Your task to perform on an android device: Open calendar and show me the third week of next month Image 0: 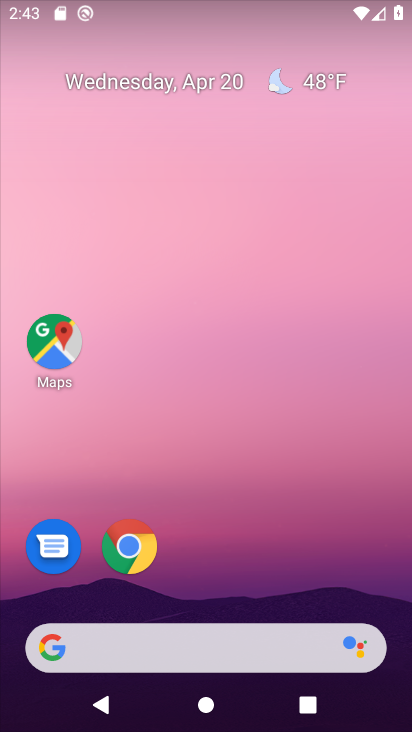
Step 0: click (196, 349)
Your task to perform on an android device: Open calendar and show me the third week of next month Image 1: 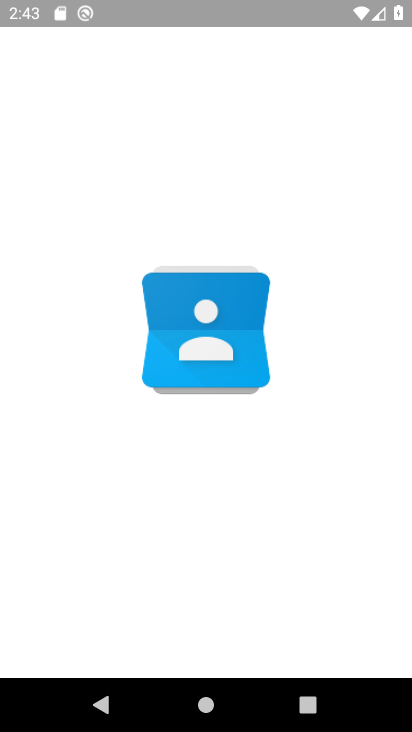
Step 1: drag from (247, 456) to (247, 293)
Your task to perform on an android device: Open calendar and show me the third week of next month Image 2: 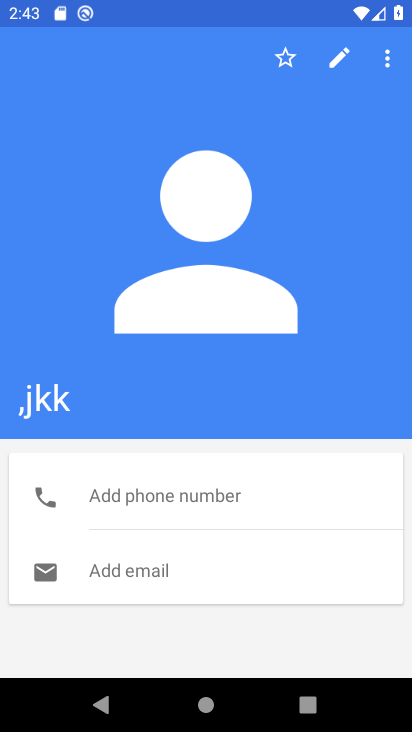
Step 2: press home button
Your task to perform on an android device: Open calendar and show me the third week of next month Image 3: 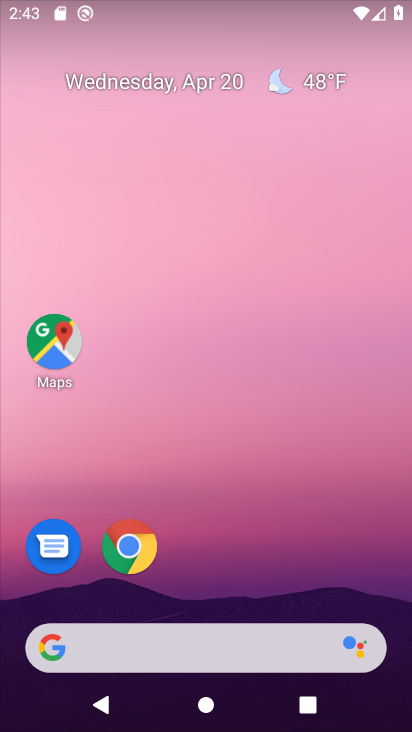
Step 3: drag from (179, 609) to (235, 250)
Your task to perform on an android device: Open calendar and show me the third week of next month Image 4: 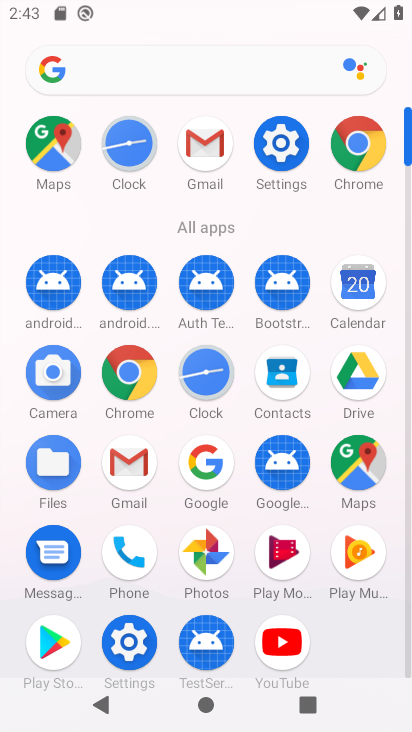
Step 4: click (356, 268)
Your task to perform on an android device: Open calendar and show me the third week of next month Image 5: 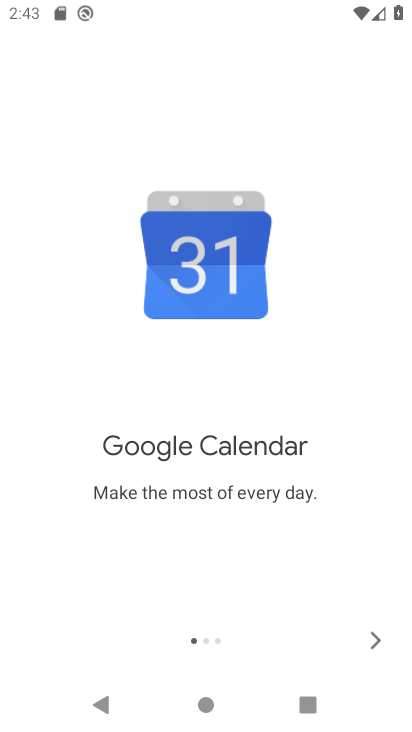
Step 5: click (349, 647)
Your task to perform on an android device: Open calendar and show me the third week of next month Image 6: 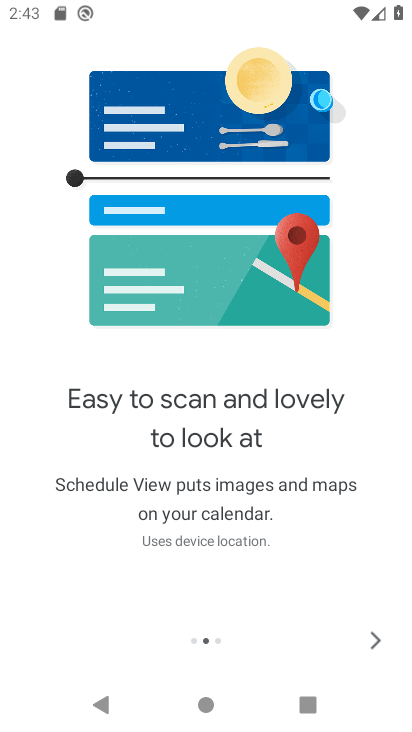
Step 6: click (362, 638)
Your task to perform on an android device: Open calendar and show me the third week of next month Image 7: 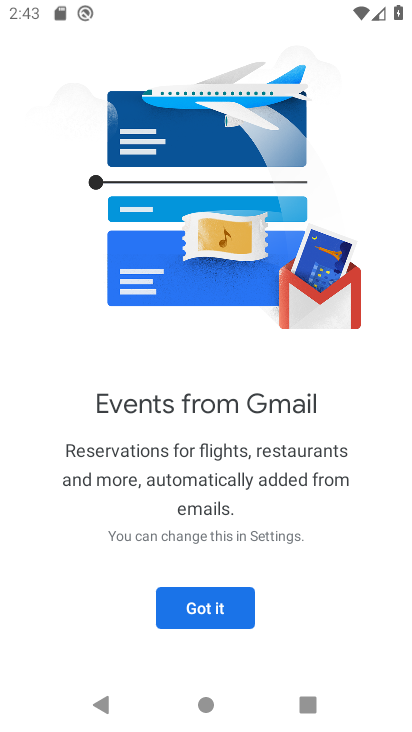
Step 7: click (245, 616)
Your task to perform on an android device: Open calendar and show me the third week of next month Image 8: 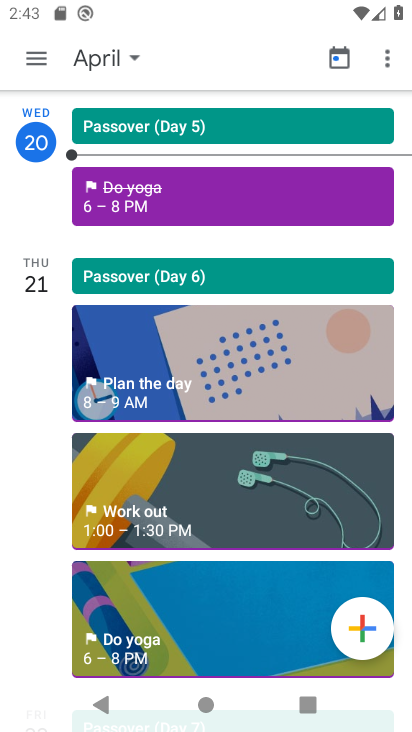
Step 8: click (44, 49)
Your task to perform on an android device: Open calendar and show me the third week of next month Image 9: 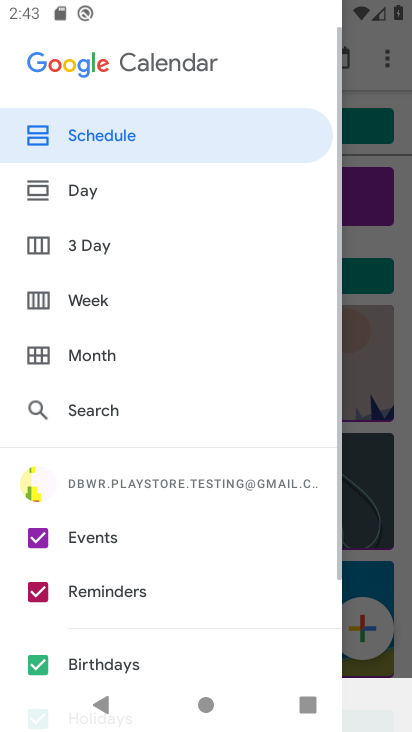
Step 9: click (141, 348)
Your task to perform on an android device: Open calendar and show me the third week of next month Image 10: 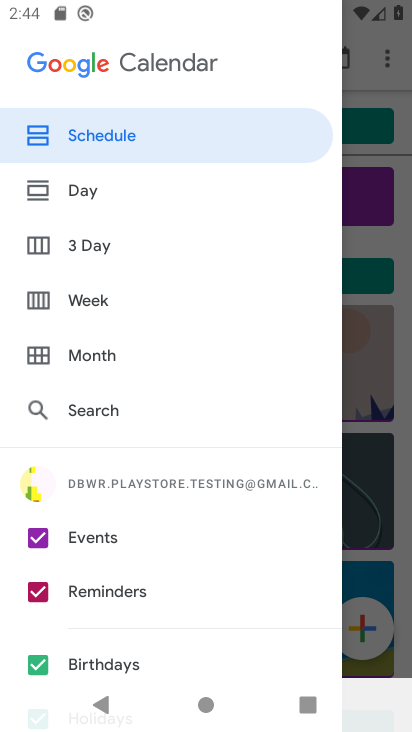
Step 10: click (121, 363)
Your task to perform on an android device: Open calendar and show me the third week of next month Image 11: 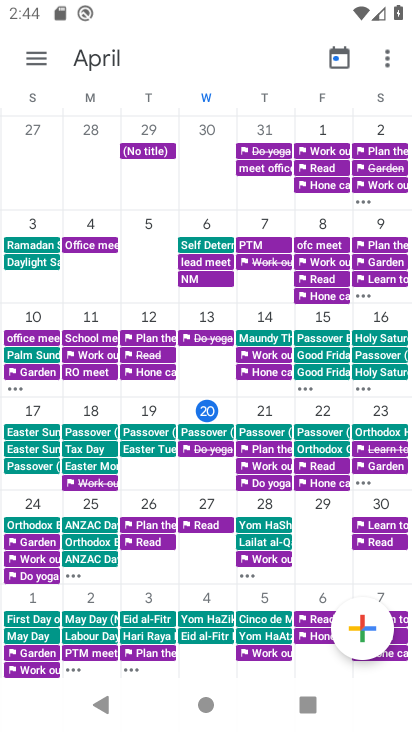
Step 11: task complete